Your task to perform on an android device: Go to accessibility settings Image 0: 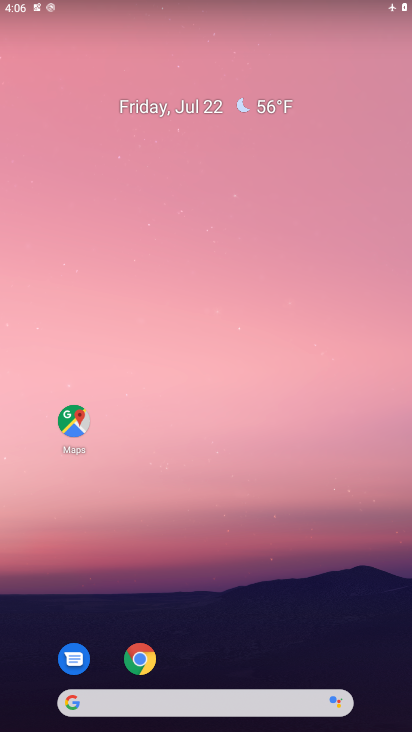
Step 0: drag from (182, 687) to (202, 174)
Your task to perform on an android device: Go to accessibility settings Image 1: 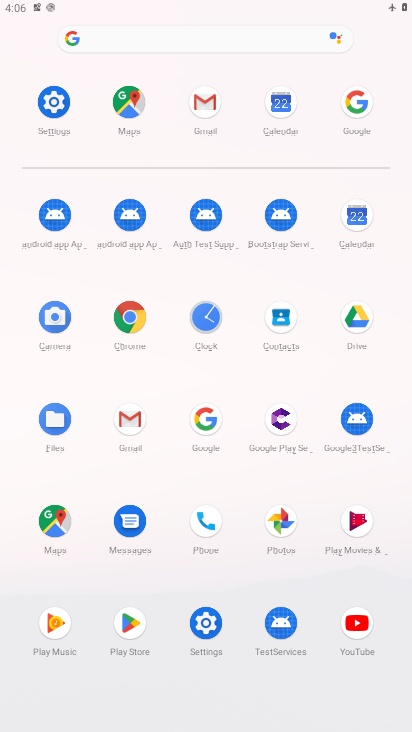
Step 1: click (204, 631)
Your task to perform on an android device: Go to accessibility settings Image 2: 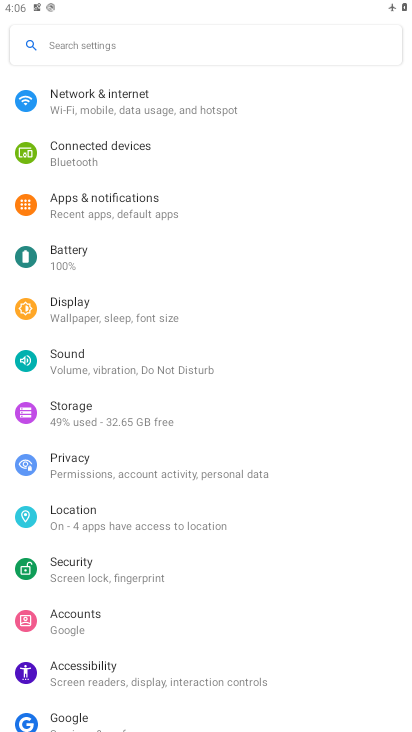
Step 2: click (87, 665)
Your task to perform on an android device: Go to accessibility settings Image 3: 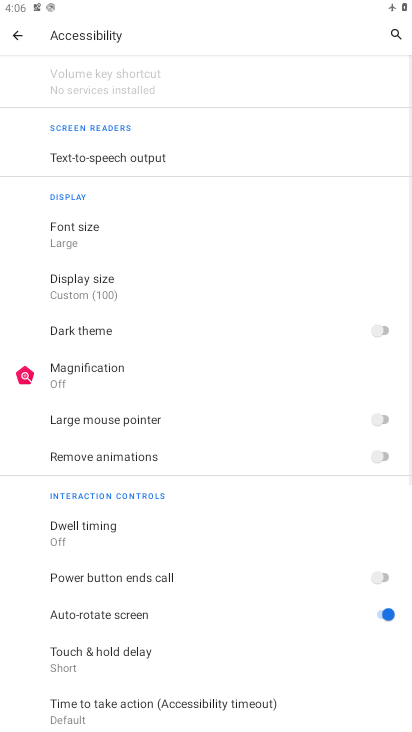
Step 3: task complete